Your task to perform on an android device: Go to eBay Image 0: 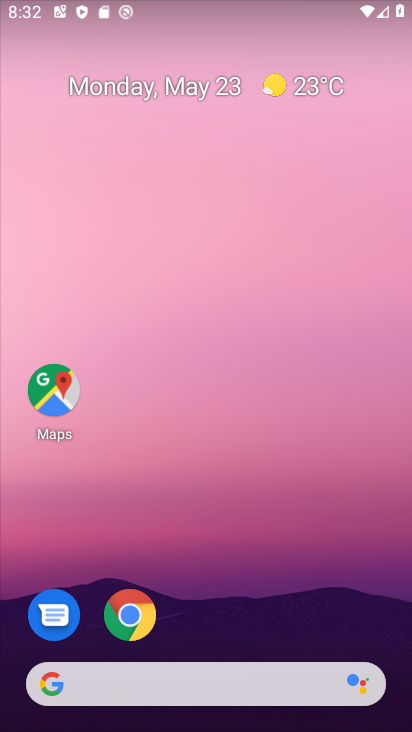
Step 0: click (130, 616)
Your task to perform on an android device: Go to eBay Image 1: 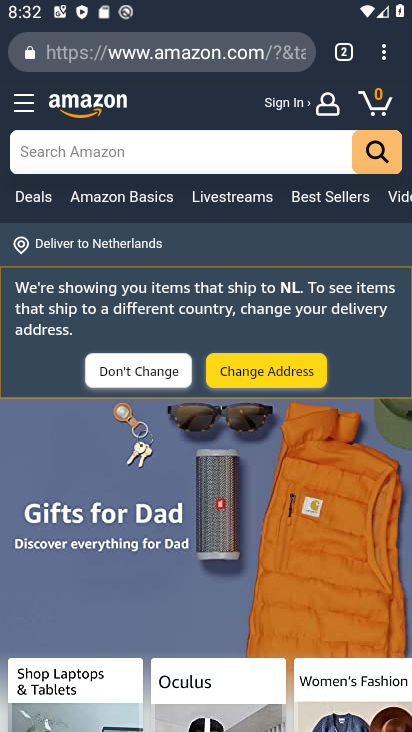
Step 1: click (235, 55)
Your task to perform on an android device: Go to eBay Image 2: 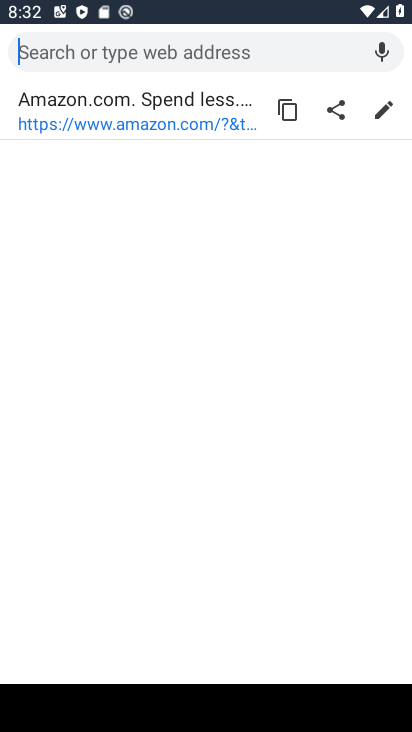
Step 2: type "eBay"
Your task to perform on an android device: Go to eBay Image 3: 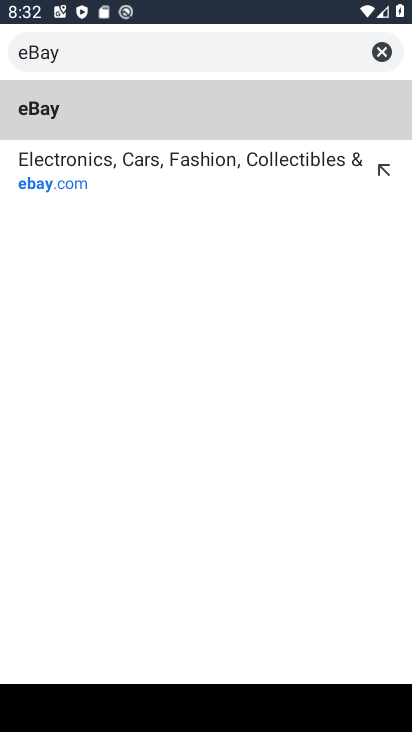
Step 3: click (89, 101)
Your task to perform on an android device: Go to eBay Image 4: 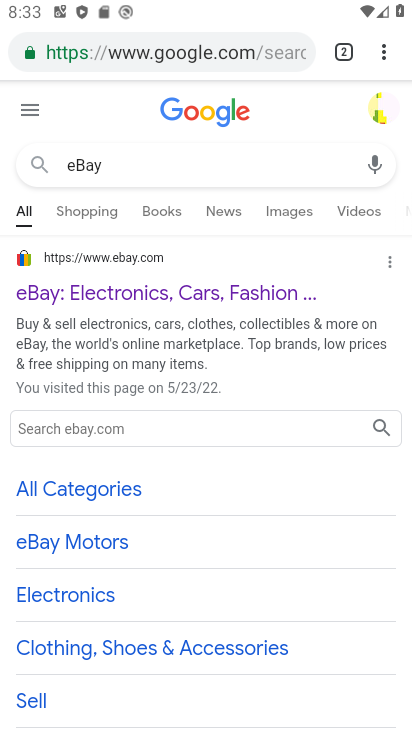
Step 4: click (152, 295)
Your task to perform on an android device: Go to eBay Image 5: 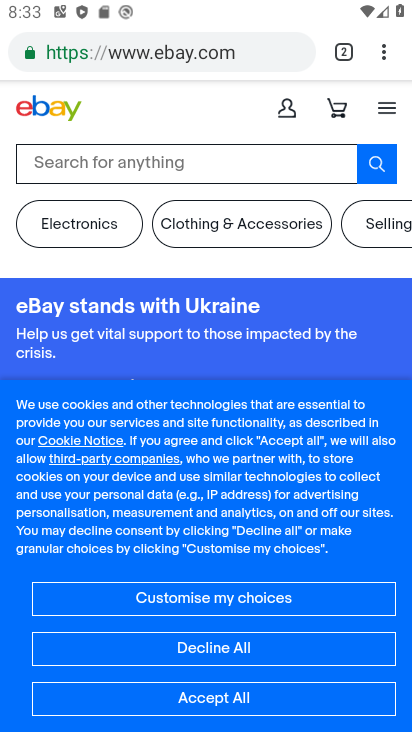
Step 5: task complete